Your task to perform on an android device: uninstall "Indeed Job Search" Image 0: 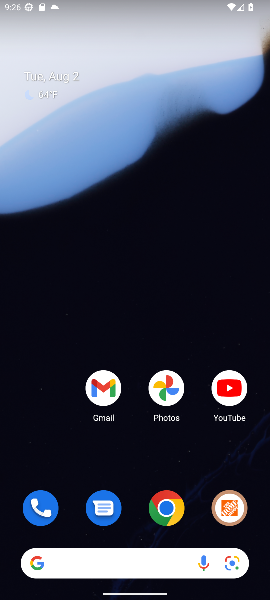
Step 0: drag from (136, 509) to (153, 140)
Your task to perform on an android device: uninstall "Indeed Job Search" Image 1: 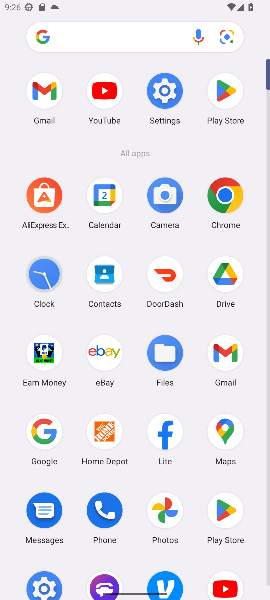
Step 1: click (222, 100)
Your task to perform on an android device: uninstall "Indeed Job Search" Image 2: 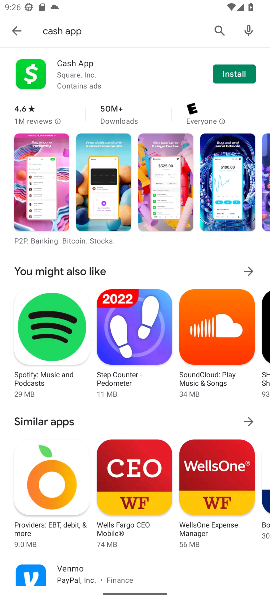
Step 2: click (20, 26)
Your task to perform on an android device: uninstall "Indeed Job Search" Image 3: 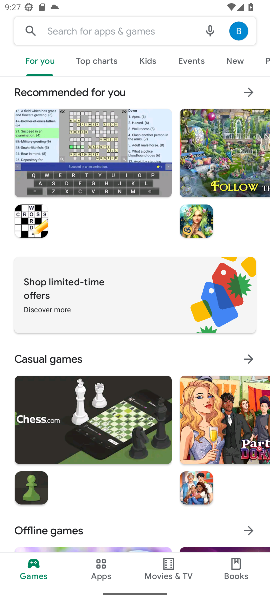
Step 3: click (112, 24)
Your task to perform on an android device: uninstall "Indeed Job Search" Image 4: 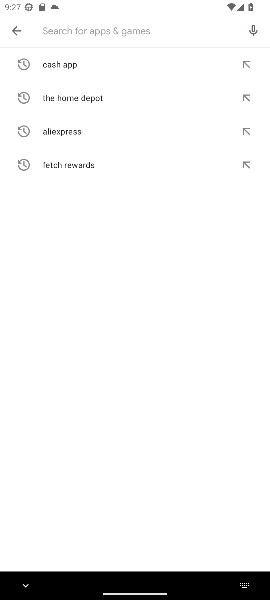
Step 4: type "Indeed Job Search"
Your task to perform on an android device: uninstall "Indeed Job Search" Image 5: 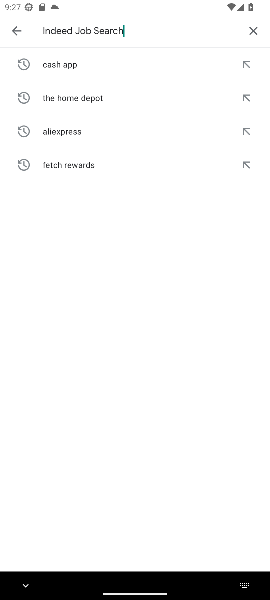
Step 5: type ""
Your task to perform on an android device: uninstall "Indeed Job Search" Image 6: 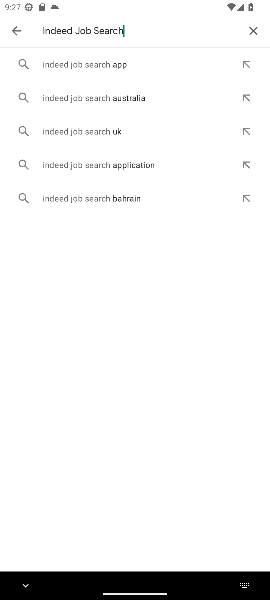
Step 6: click (147, 66)
Your task to perform on an android device: uninstall "Indeed Job Search" Image 7: 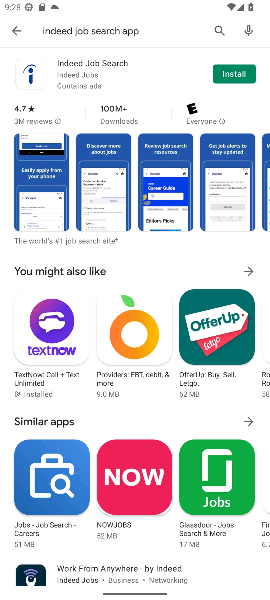
Step 7: task complete